Your task to perform on an android device: Show me the alarms in the clock app Image 0: 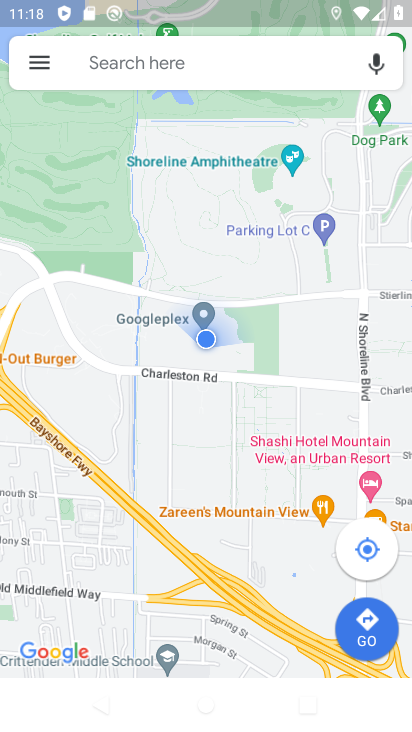
Step 0: drag from (194, 582) to (245, 159)
Your task to perform on an android device: Show me the alarms in the clock app Image 1: 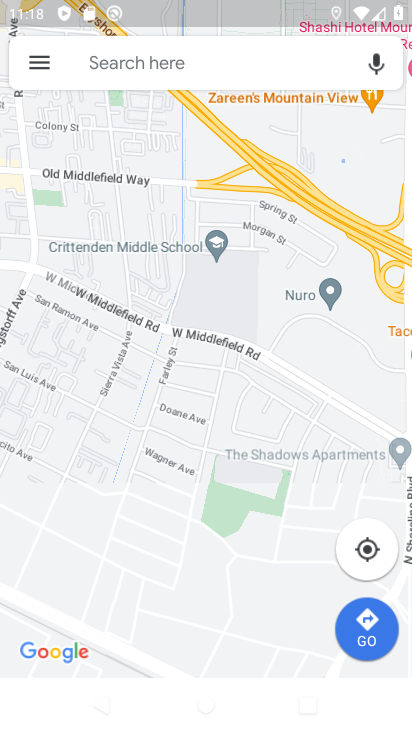
Step 1: drag from (185, 158) to (182, 731)
Your task to perform on an android device: Show me the alarms in the clock app Image 2: 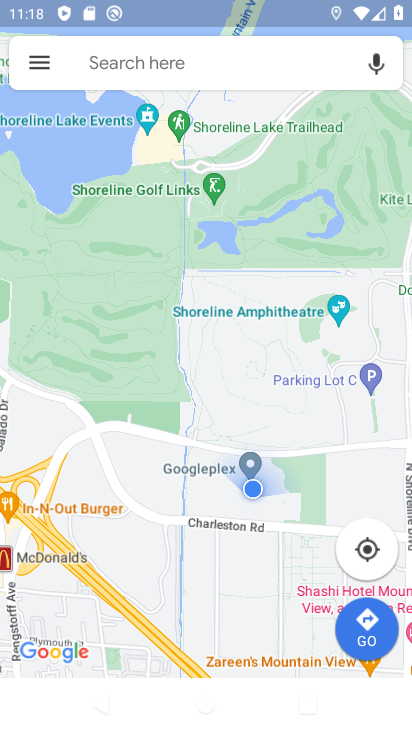
Step 2: drag from (225, 289) to (252, 722)
Your task to perform on an android device: Show me the alarms in the clock app Image 3: 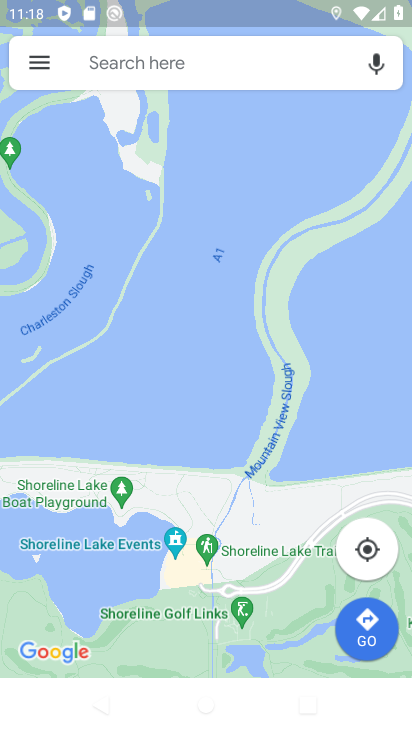
Step 3: click (40, 69)
Your task to perform on an android device: Show me the alarms in the clock app Image 4: 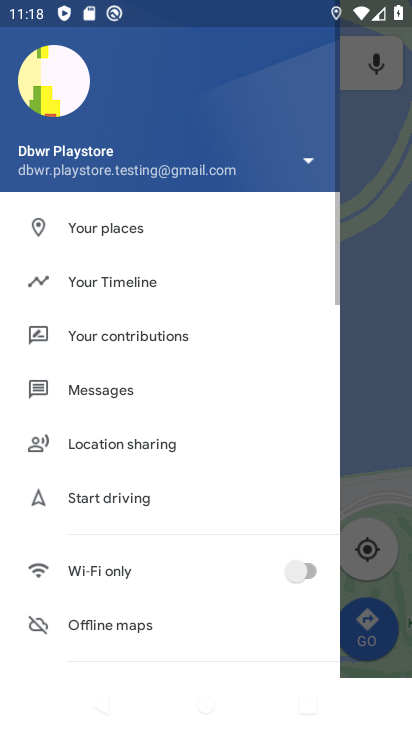
Step 4: drag from (195, 277) to (230, 626)
Your task to perform on an android device: Show me the alarms in the clock app Image 5: 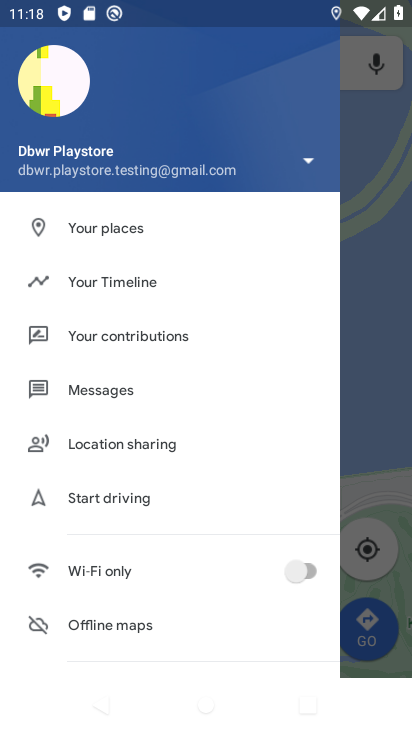
Step 5: drag from (231, 613) to (292, 144)
Your task to perform on an android device: Show me the alarms in the clock app Image 6: 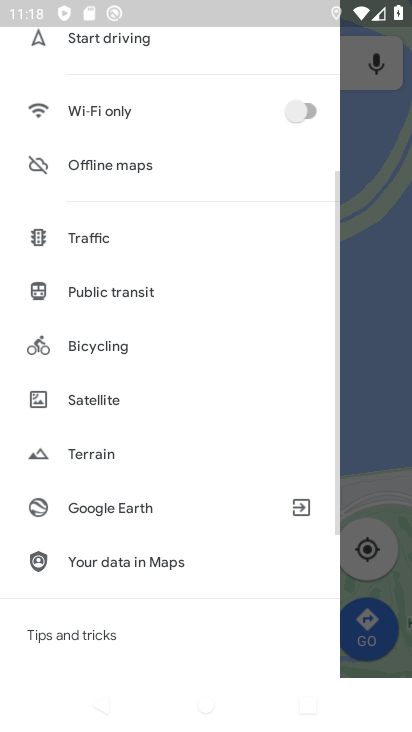
Step 6: drag from (268, 163) to (232, 620)
Your task to perform on an android device: Show me the alarms in the clock app Image 7: 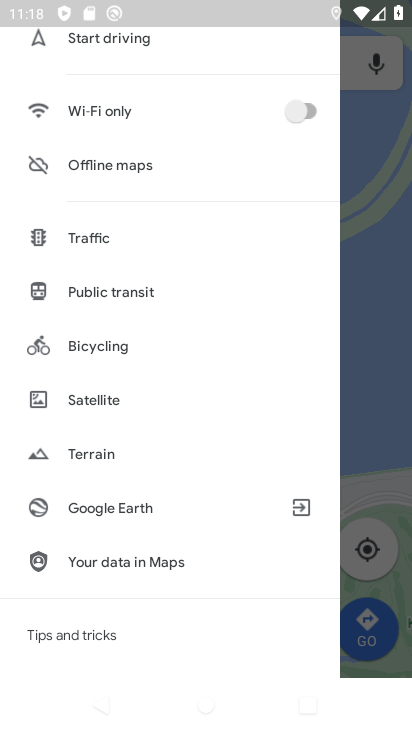
Step 7: drag from (258, 335) to (0, 591)
Your task to perform on an android device: Show me the alarms in the clock app Image 8: 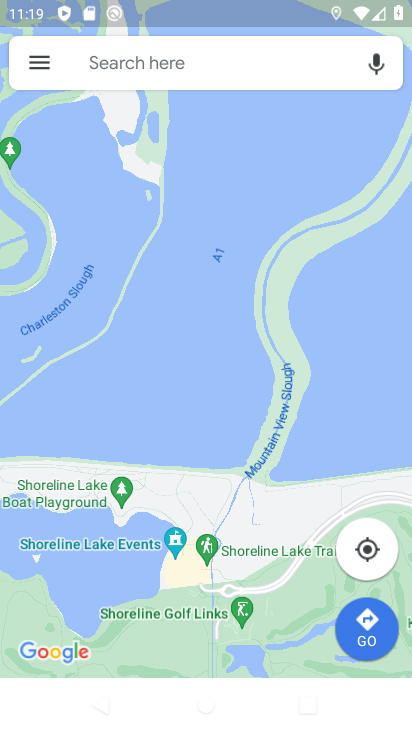
Step 8: press home button
Your task to perform on an android device: Show me the alarms in the clock app Image 9: 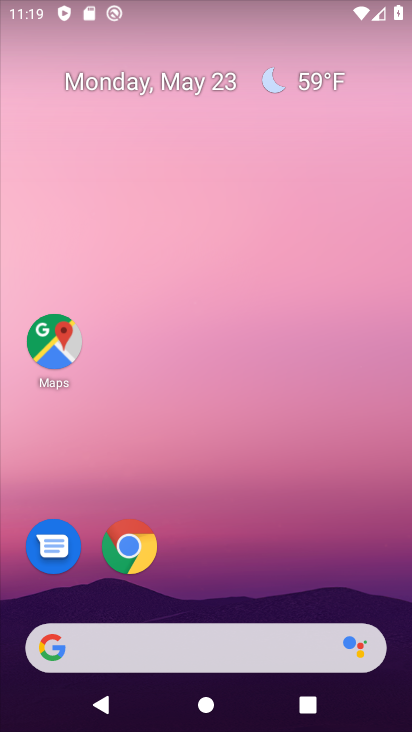
Step 9: drag from (218, 573) to (253, 177)
Your task to perform on an android device: Show me the alarms in the clock app Image 10: 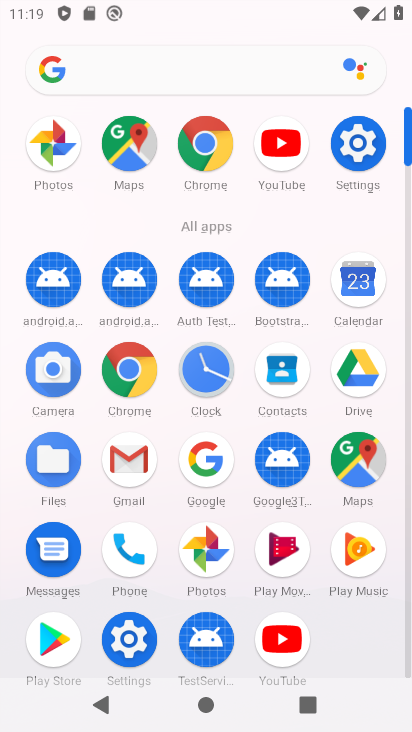
Step 10: click (230, 368)
Your task to perform on an android device: Show me the alarms in the clock app Image 11: 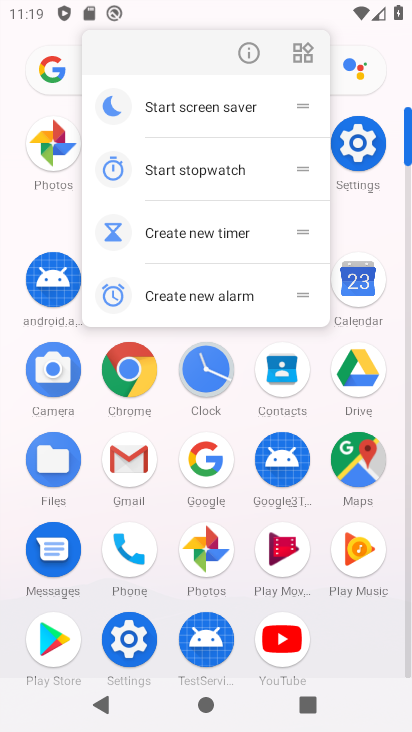
Step 11: click (260, 42)
Your task to perform on an android device: Show me the alarms in the clock app Image 12: 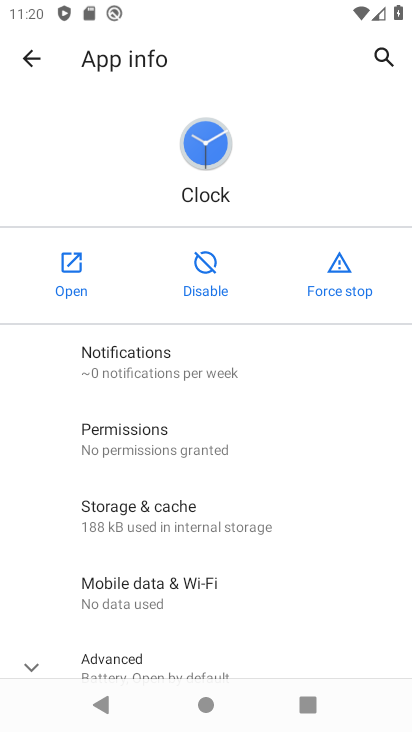
Step 12: click (72, 262)
Your task to perform on an android device: Show me the alarms in the clock app Image 13: 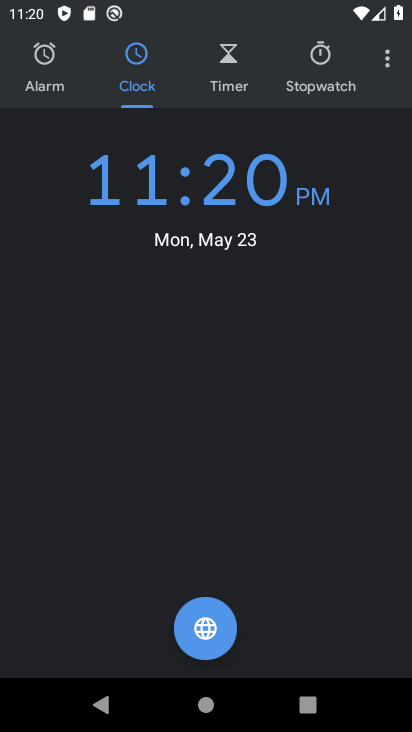
Step 13: click (66, 55)
Your task to perform on an android device: Show me the alarms in the clock app Image 14: 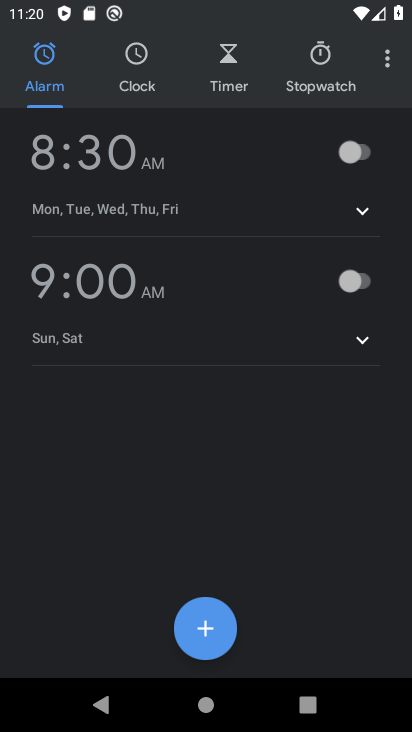
Step 14: task complete